Your task to perform on an android device: turn off priority inbox in the gmail app Image 0: 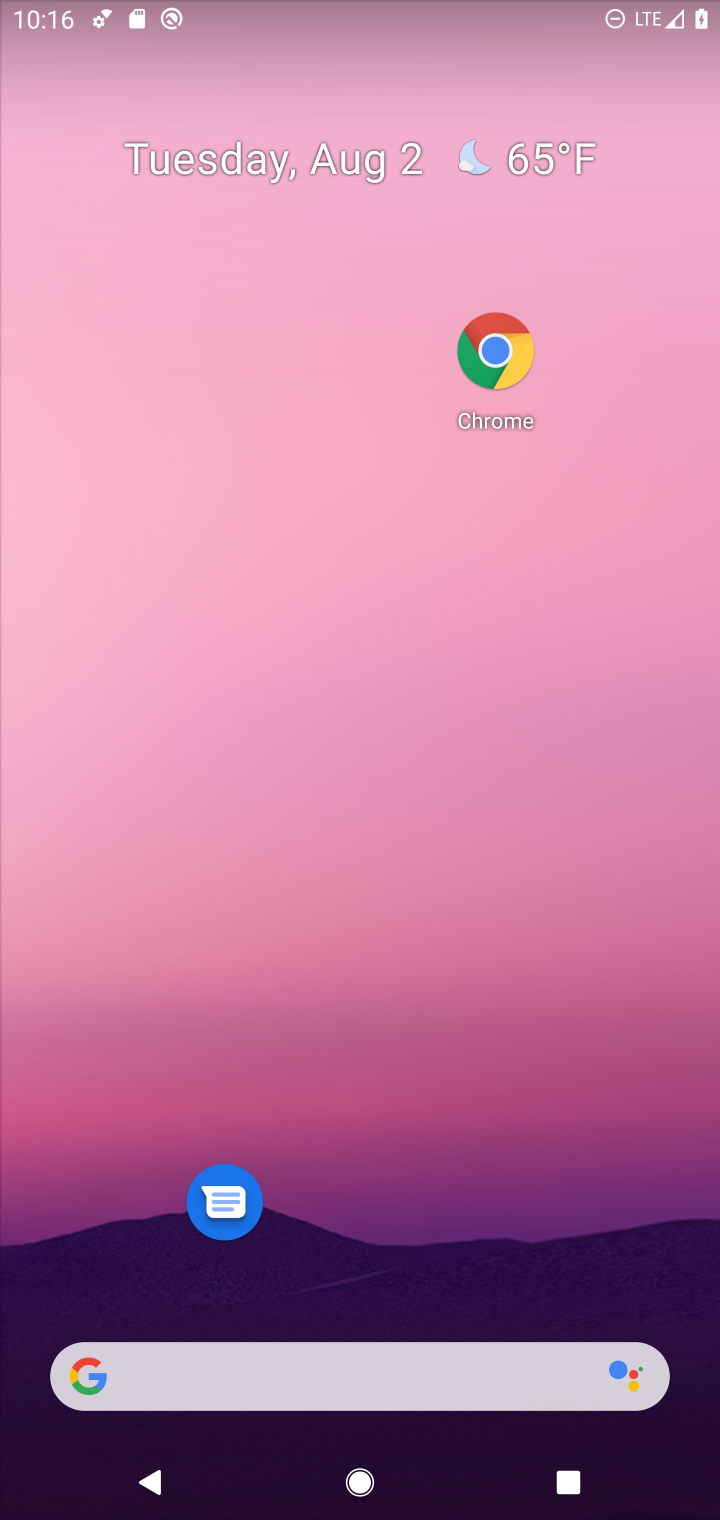
Step 0: drag from (409, 1259) to (361, 11)
Your task to perform on an android device: turn off priority inbox in the gmail app Image 1: 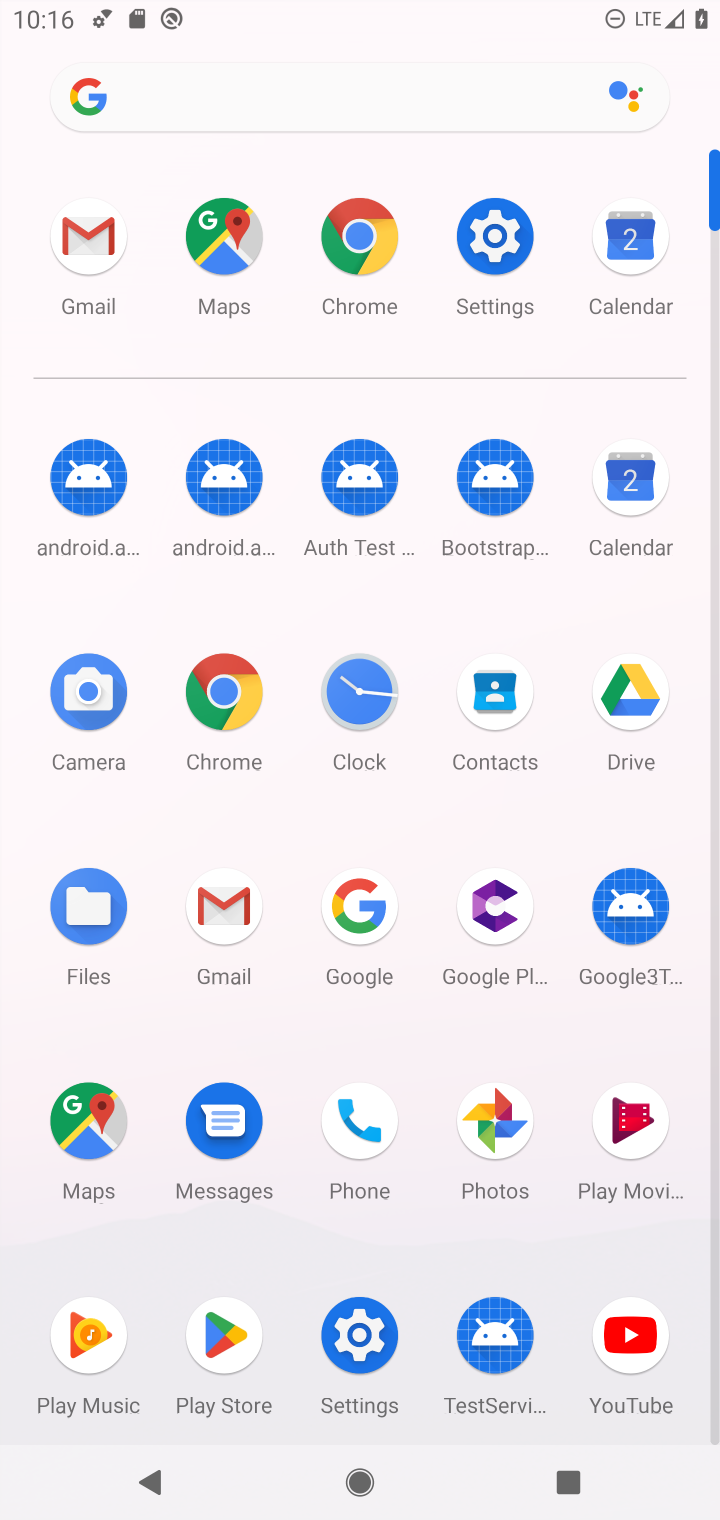
Step 1: click (84, 263)
Your task to perform on an android device: turn off priority inbox in the gmail app Image 2: 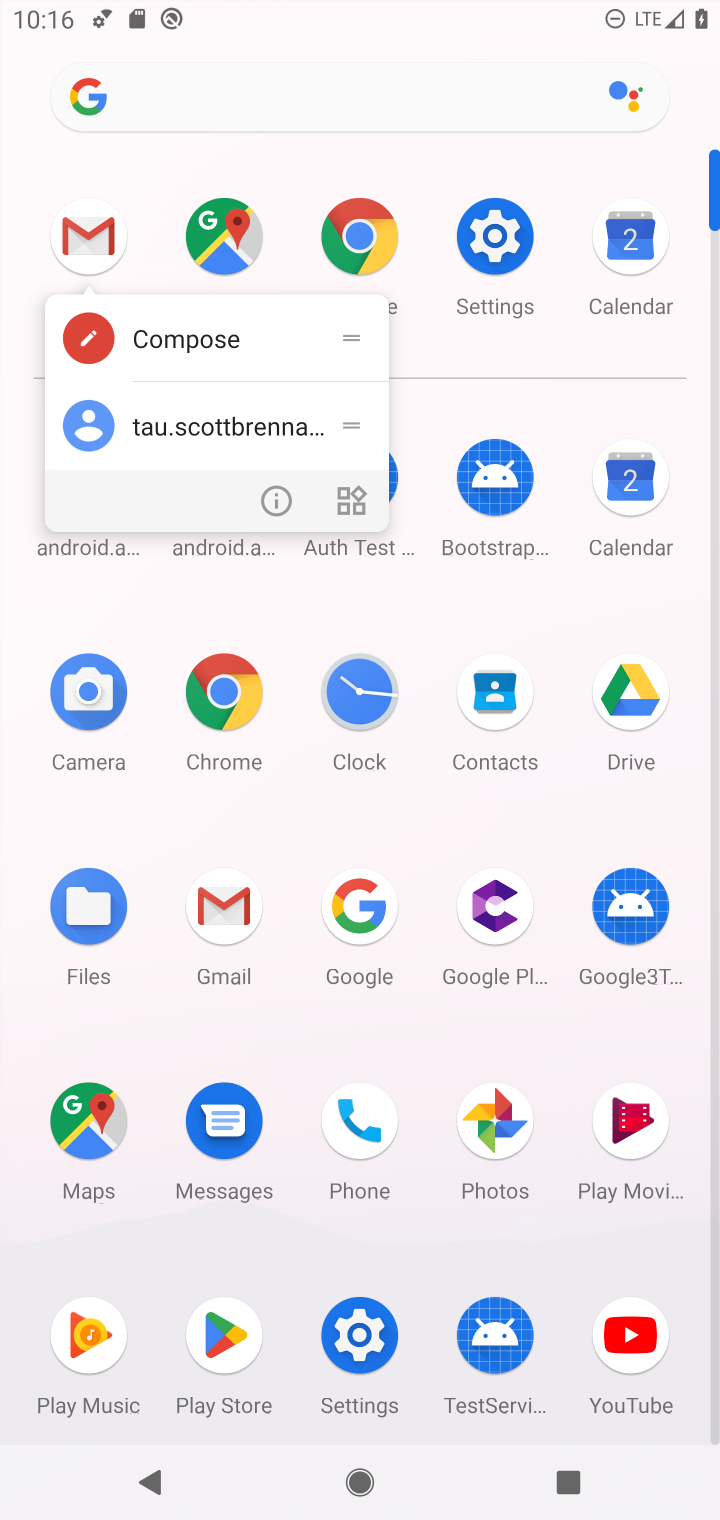
Step 2: click (89, 234)
Your task to perform on an android device: turn off priority inbox in the gmail app Image 3: 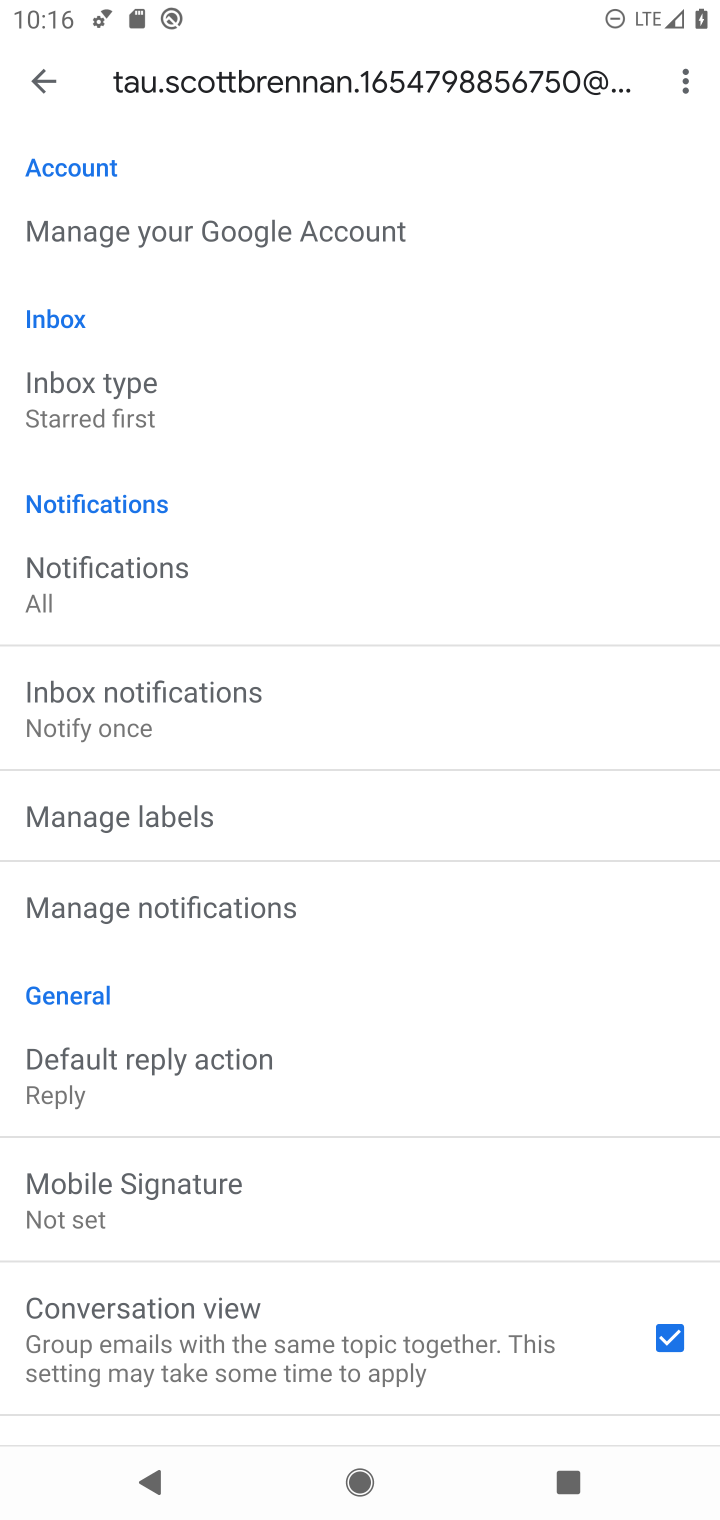
Step 3: click (128, 421)
Your task to perform on an android device: turn off priority inbox in the gmail app Image 4: 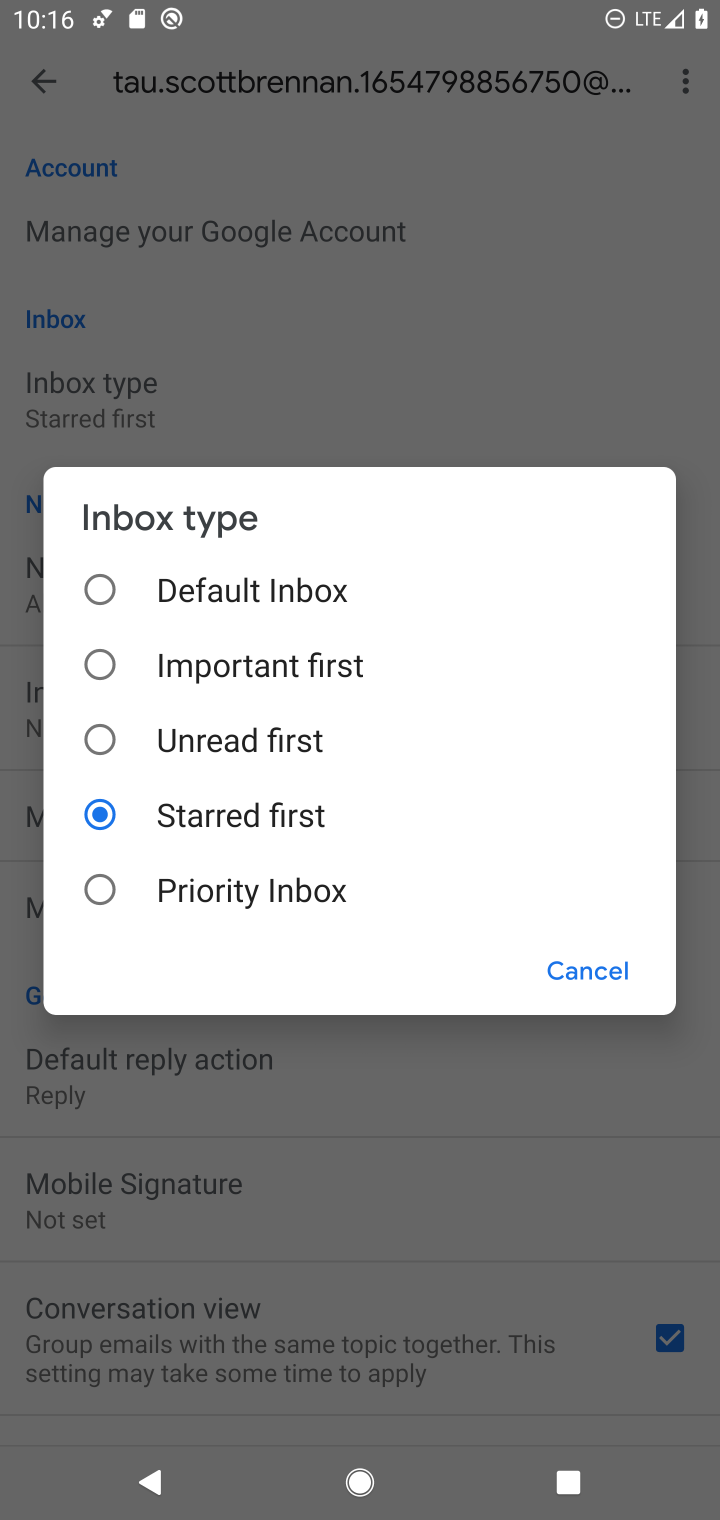
Step 4: task complete